Your task to perform on an android device: turn off notifications settings in the gmail app Image 0: 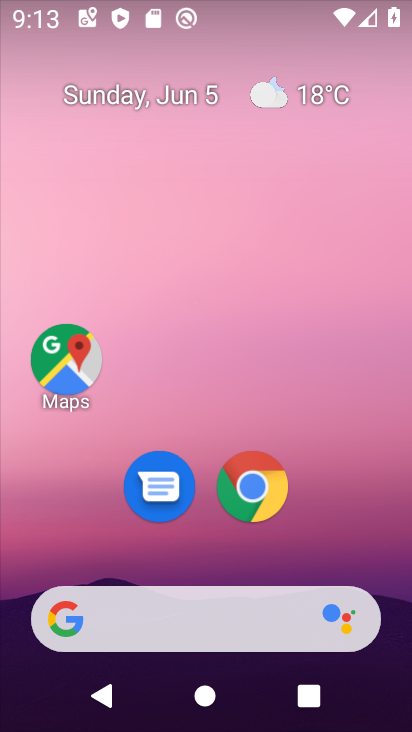
Step 0: drag from (381, 395) to (399, 120)
Your task to perform on an android device: turn off notifications settings in the gmail app Image 1: 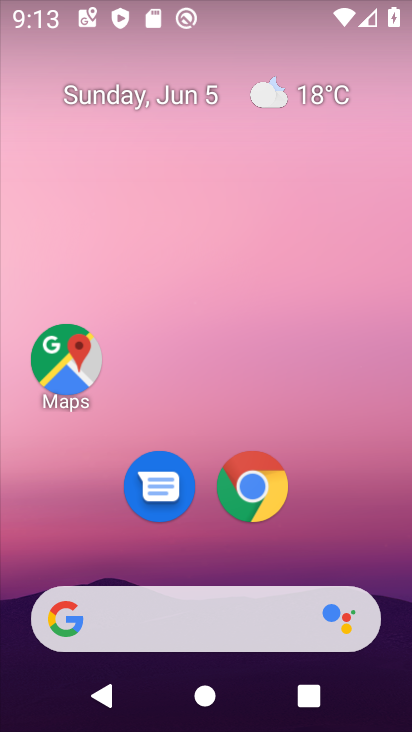
Step 1: drag from (332, 506) to (339, 76)
Your task to perform on an android device: turn off notifications settings in the gmail app Image 2: 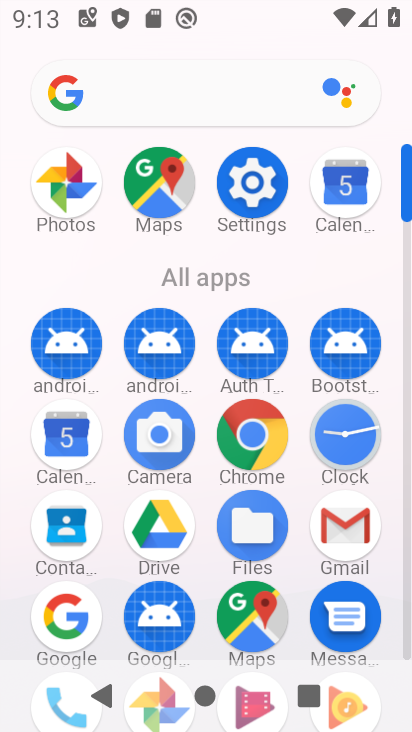
Step 2: click (341, 549)
Your task to perform on an android device: turn off notifications settings in the gmail app Image 3: 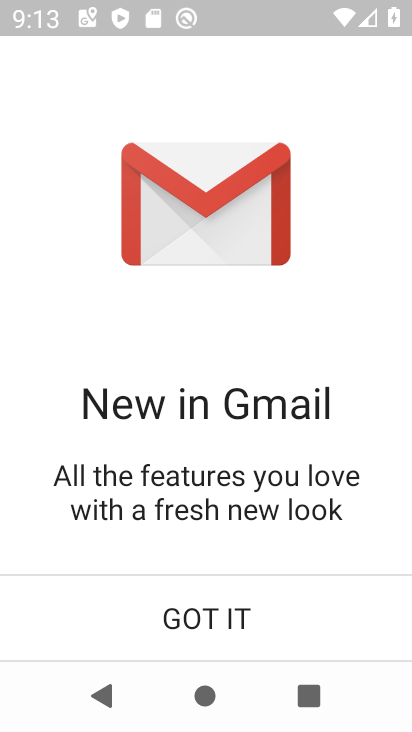
Step 3: click (208, 628)
Your task to perform on an android device: turn off notifications settings in the gmail app Image 4: 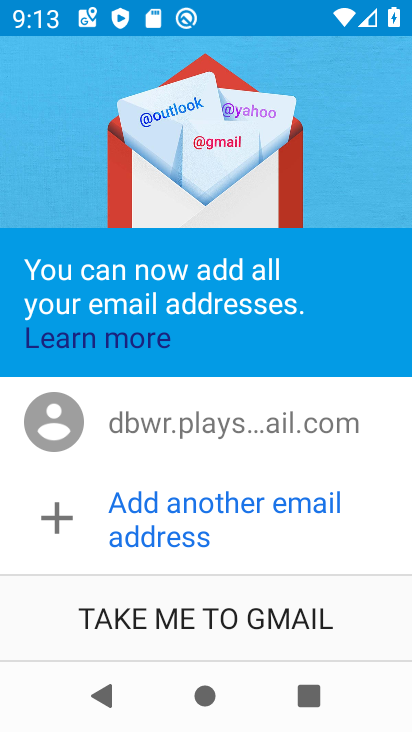
Step 4: click (209, 626)
Your task to perform on an android device: turn off notifications settings in the gmail app Image 5: 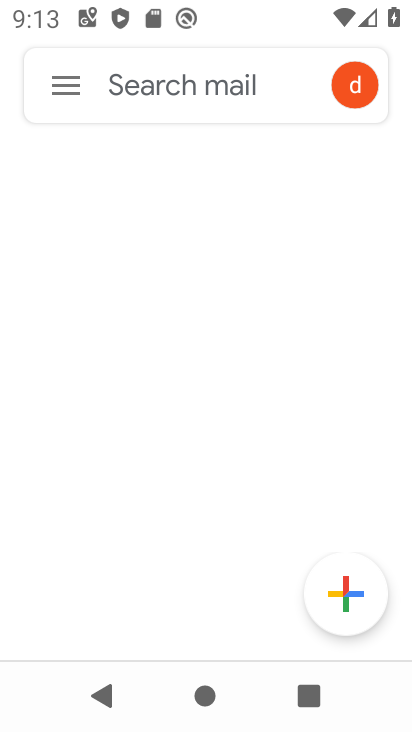
Step 5: click (71, 100)
Your task to perform on an android device: turn off notifications settings in the gmail app Image 6: 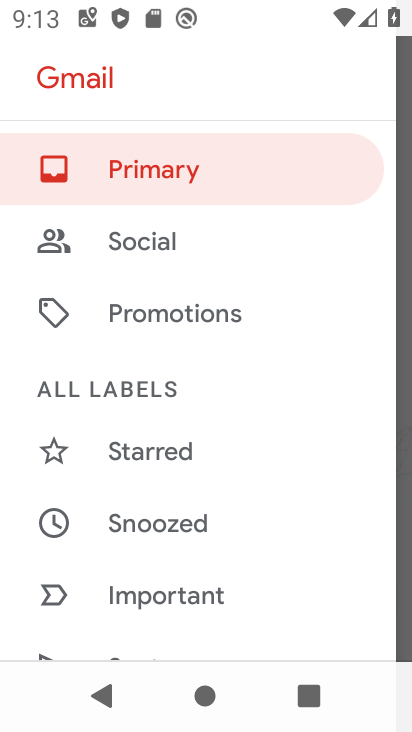
Step 6: drag from (229, 666) to (277, 250)
Your task to perform on an android device: turn off notifications settings in the gmail app Image 7: 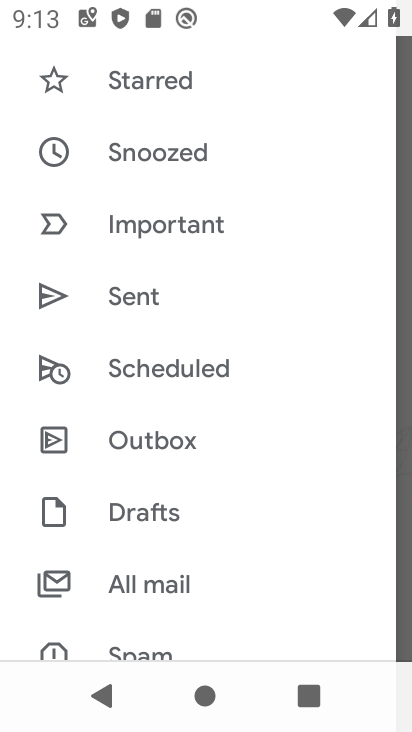
Step 7: drag from (240, 598) to (273, 243)
Your task to perform on an android device: turn off notifications settings in the gmail app Image 8: 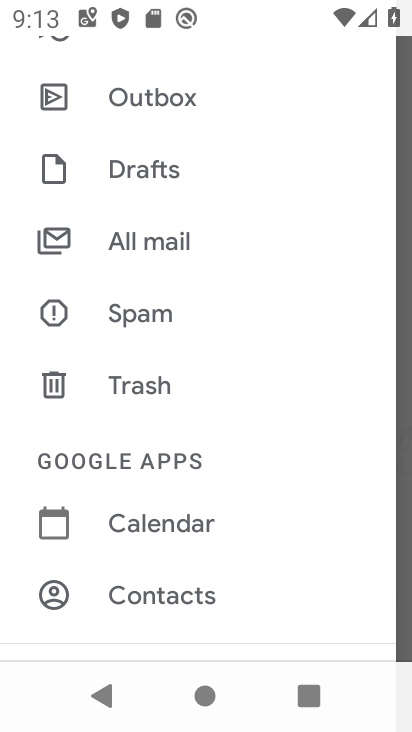
Step 8: drag from (222, 559) to (278, 286)
Your task to perform on an android device: turn off notifications settings in the gmail app Image 9: 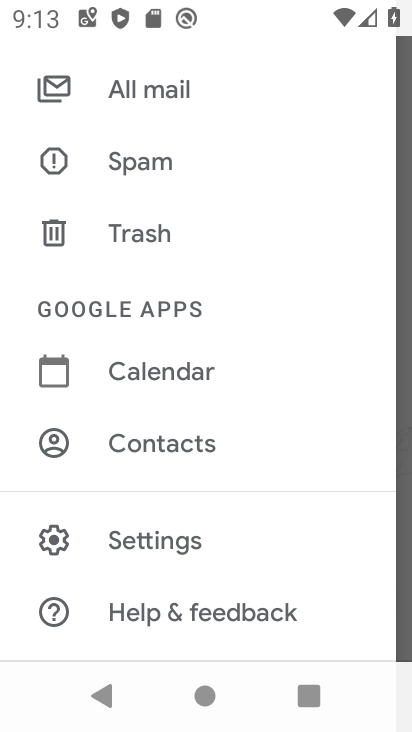
Step 9: click (218, 552)
Your task to perform on an android device: turn off notifications settings in the gmail app Image 10: 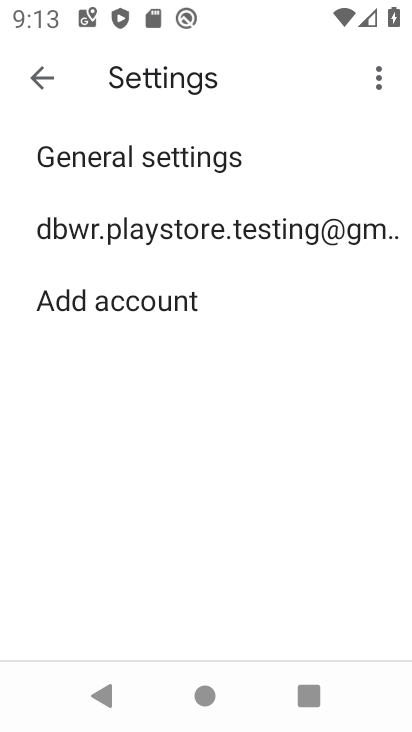
Step 10: click (256, 232)
Your task to perform on an android device: turn off notifications settings in the gmail app Image 11: 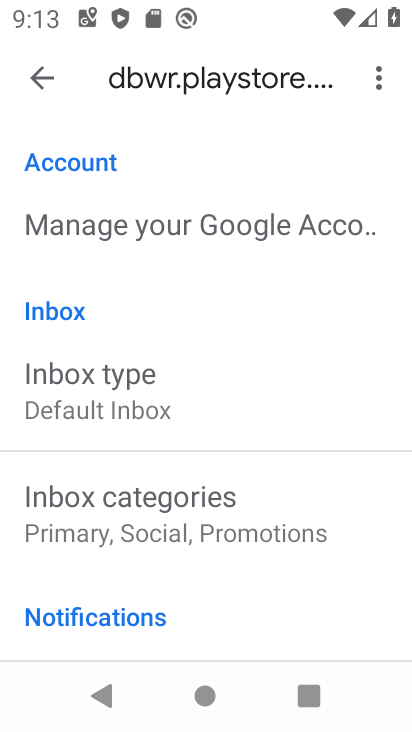
Step 11: drag from (226, 599) to (244, 342)
Your task to perform on an android device: turn off notifications settings in the gmail app Image 12: 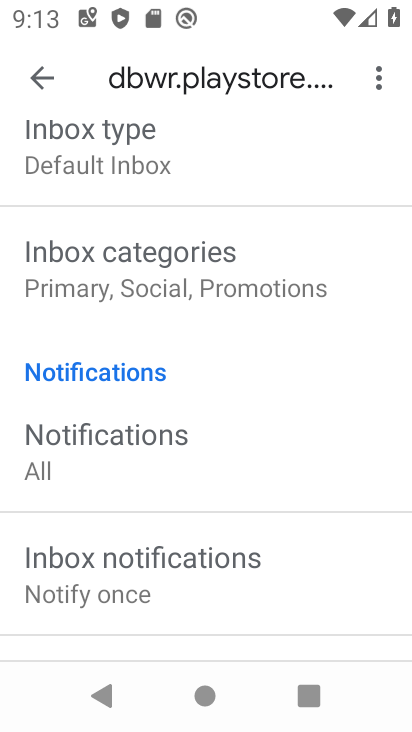
Step 12: click (126, 421)
Your task to perform on an android device: turn off notifications settings in the gmail app Image 13: 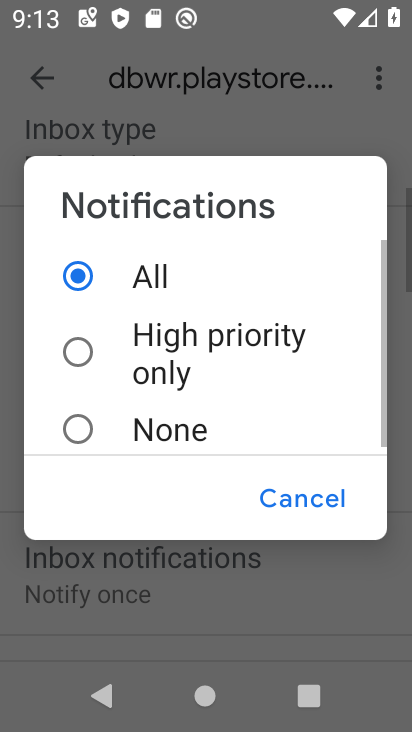
Step 13: click (77, 433)
Your task to perform on an android device: turn off notifications settings in the gmail app Image 14: 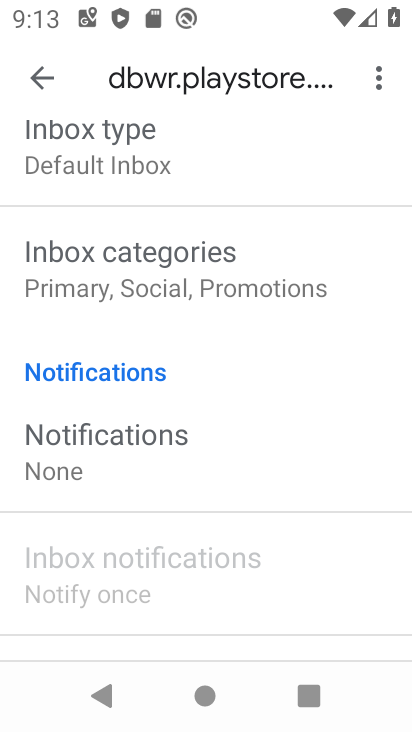
Step 14: task complete